Your task to perform on an android device: Do I have any events today? Image 0: 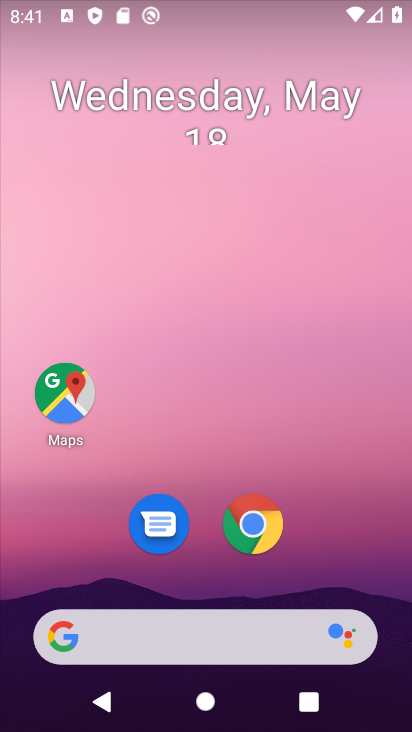
Step 0: drag from (270, 465) to (220, 93)
Your task to perform on an android device: Do I have any events today? Image 1: 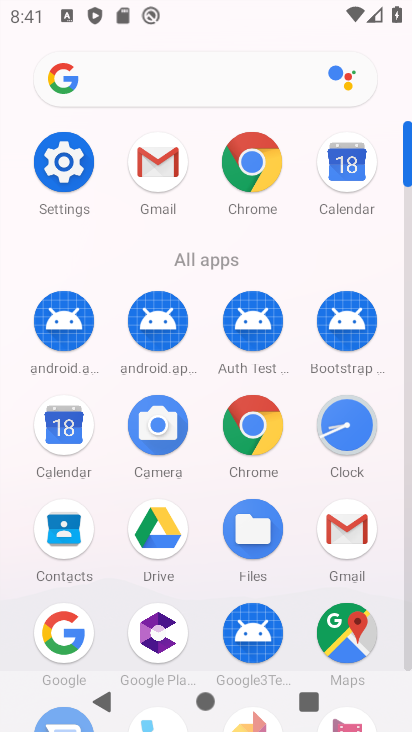
Step 1: click (349, 164)
Your task to perform on an android device: Do I have any events today? Image 2: 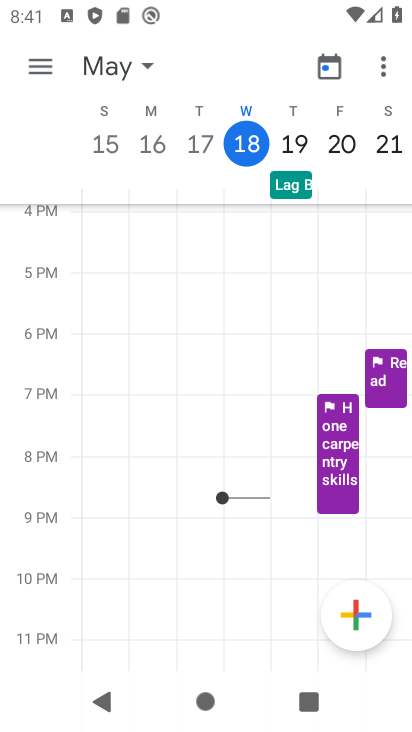
Step 2: click (247, 144)
Your task to perform on an android device: Do I have any events today? Image 3: 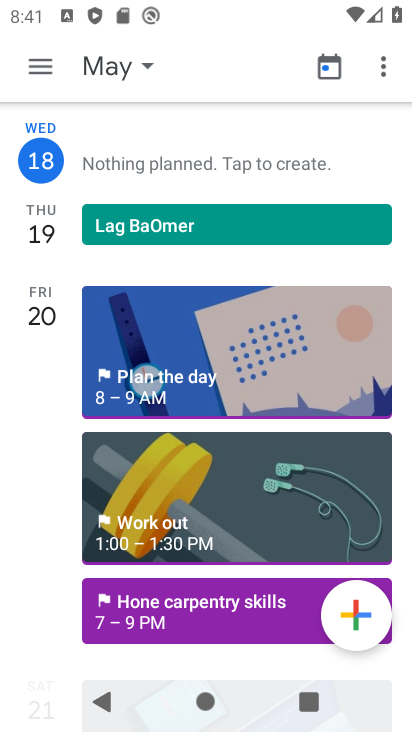
Step 3: task complete